Your task to perform on an android device: open app "Upside-Cash back on gas & food" (install if not already installed) and enter user name: "transatlantic@gmail.com" and password: "experiences" Image 0: 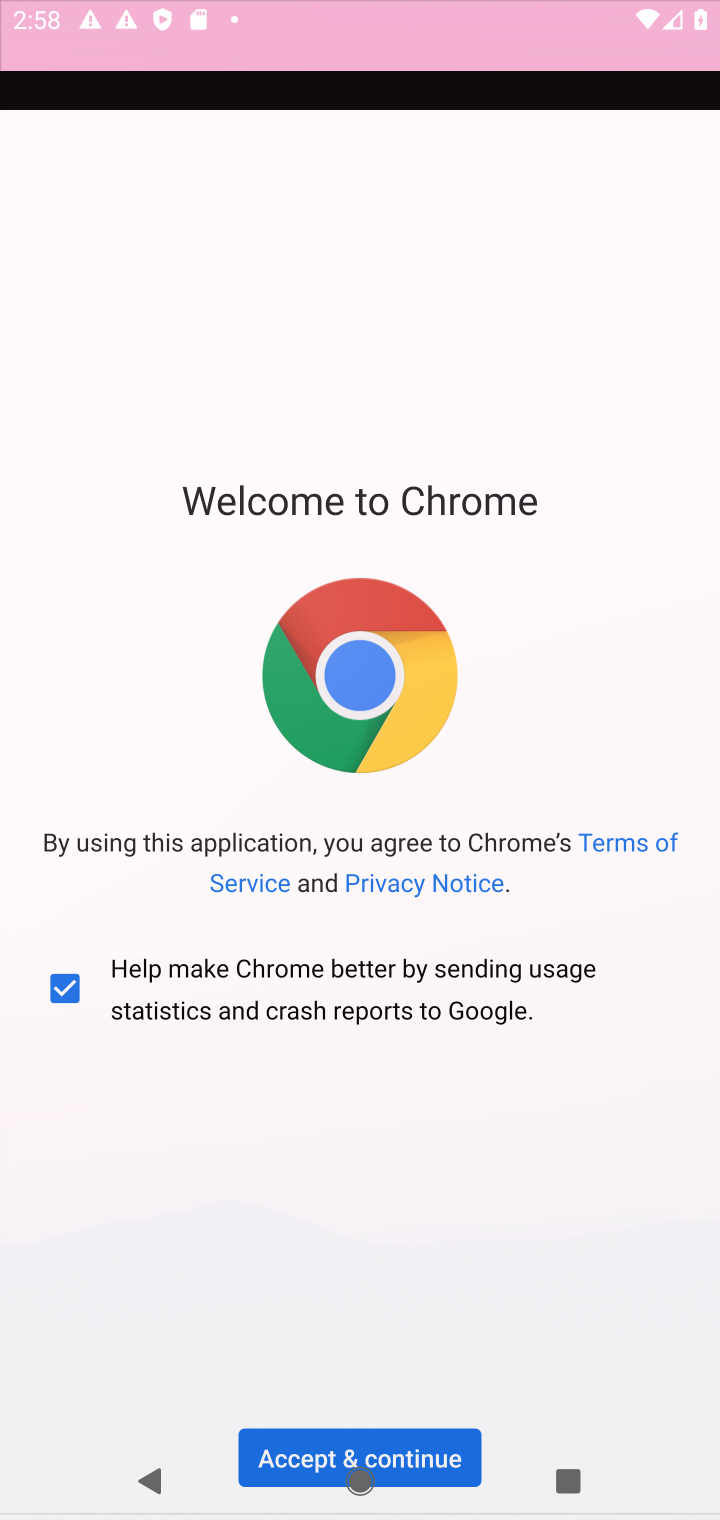
Step 0: press home button
Your task to perform on an android device: open app "Upside-Cash back on gas & food" (install if not already installed) and enter user name: "transatlantic@gmail.com" and password: "experiences" Image 1: 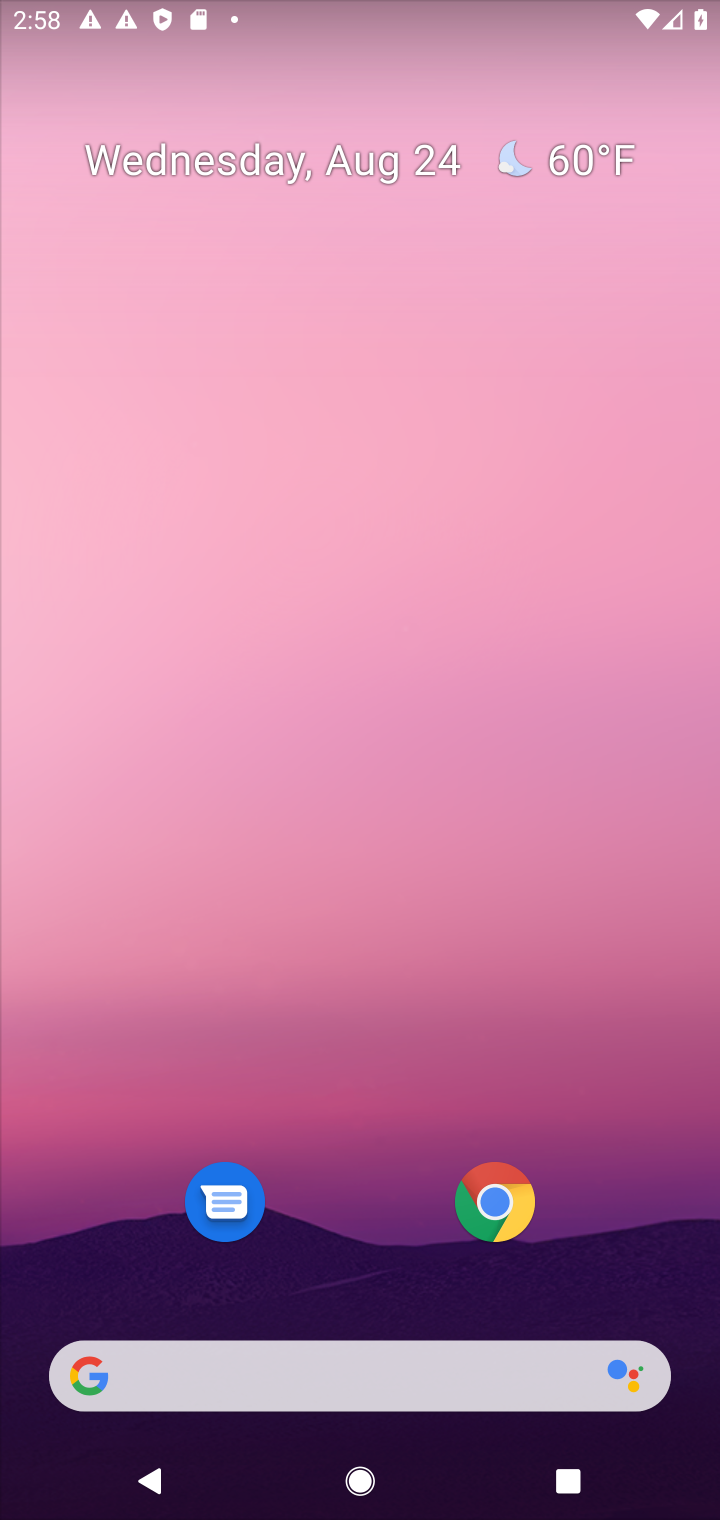
Step 1: drag from (368, 1367) to (582, 14)
Your task to perform on an android device: open app "Upside-Cash back on gas & food" (install if not already installed) and enter user name: "transatlantic@gmail.com" and password: "experiences" Image 2: 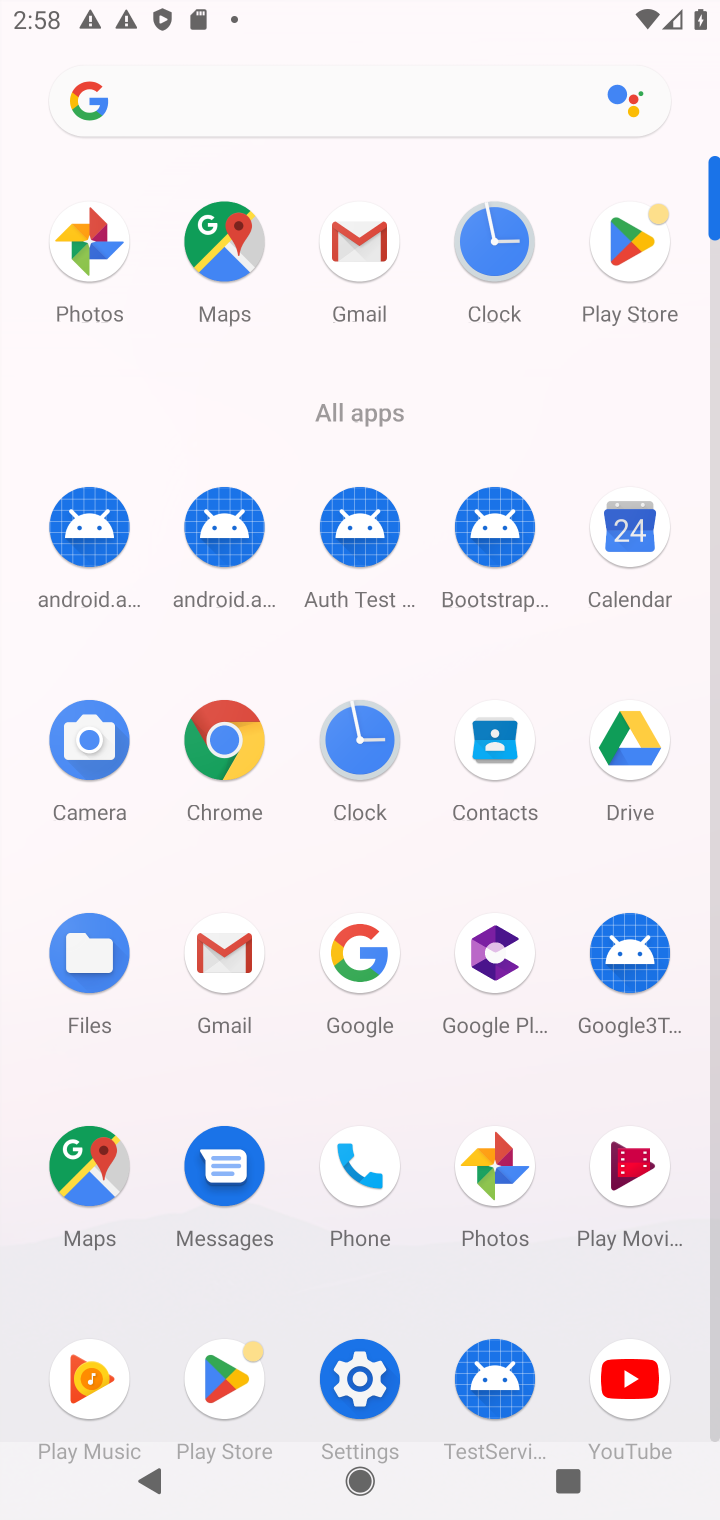
Step 2: drag from (229, 1379) to (391, 836)
Your task to perform on an android device: open app "Upside-Cash back on gas & food" (install if not already installed) and enter user name: "transatlantic@gmail.com" and password: "experiences" Image 3: 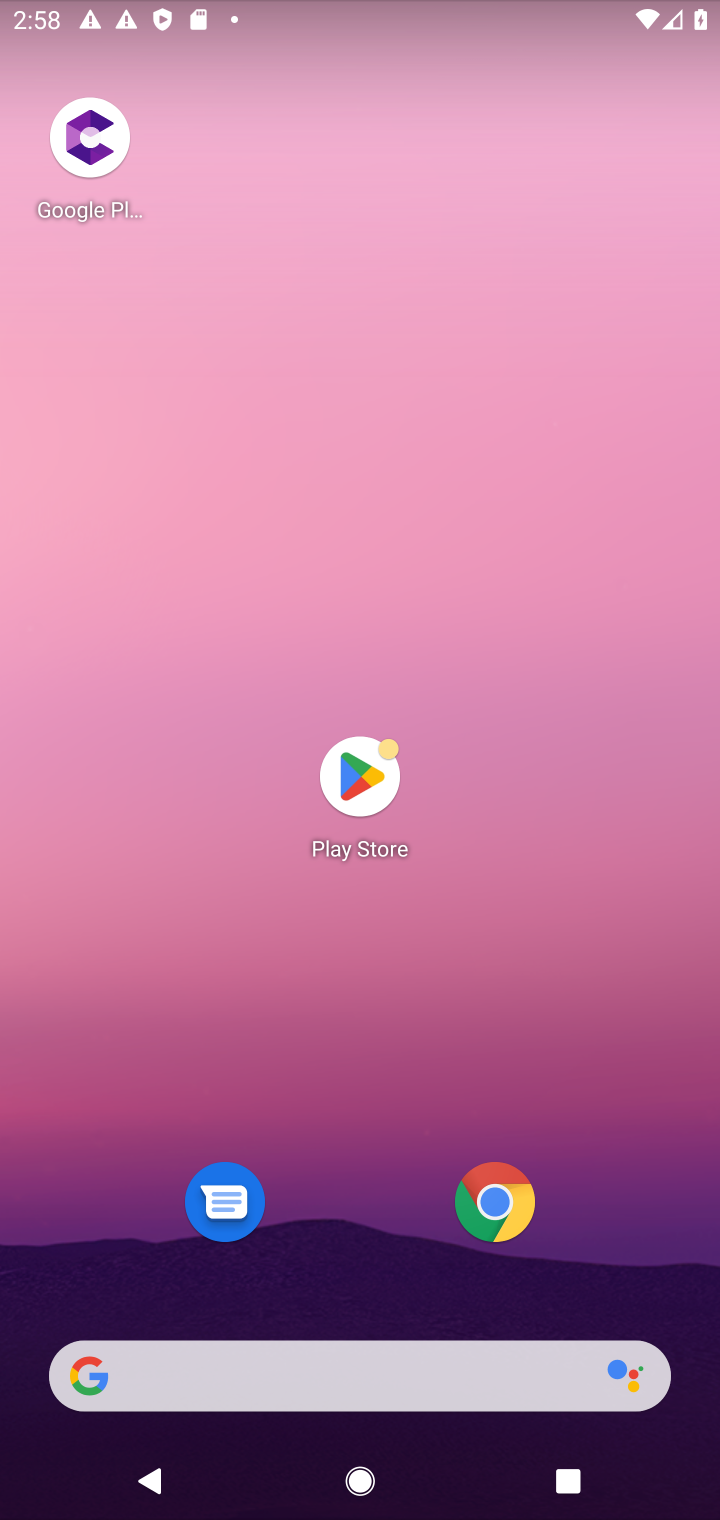
Step 3: drag from (356, 792) to (412, 847)
Your task to perform on an android device: open app "Upside-Cash back on gas & food" (install if not already installed) and enter user name: "transatlantic@gmail.com" and password: "experiences" Image 4: 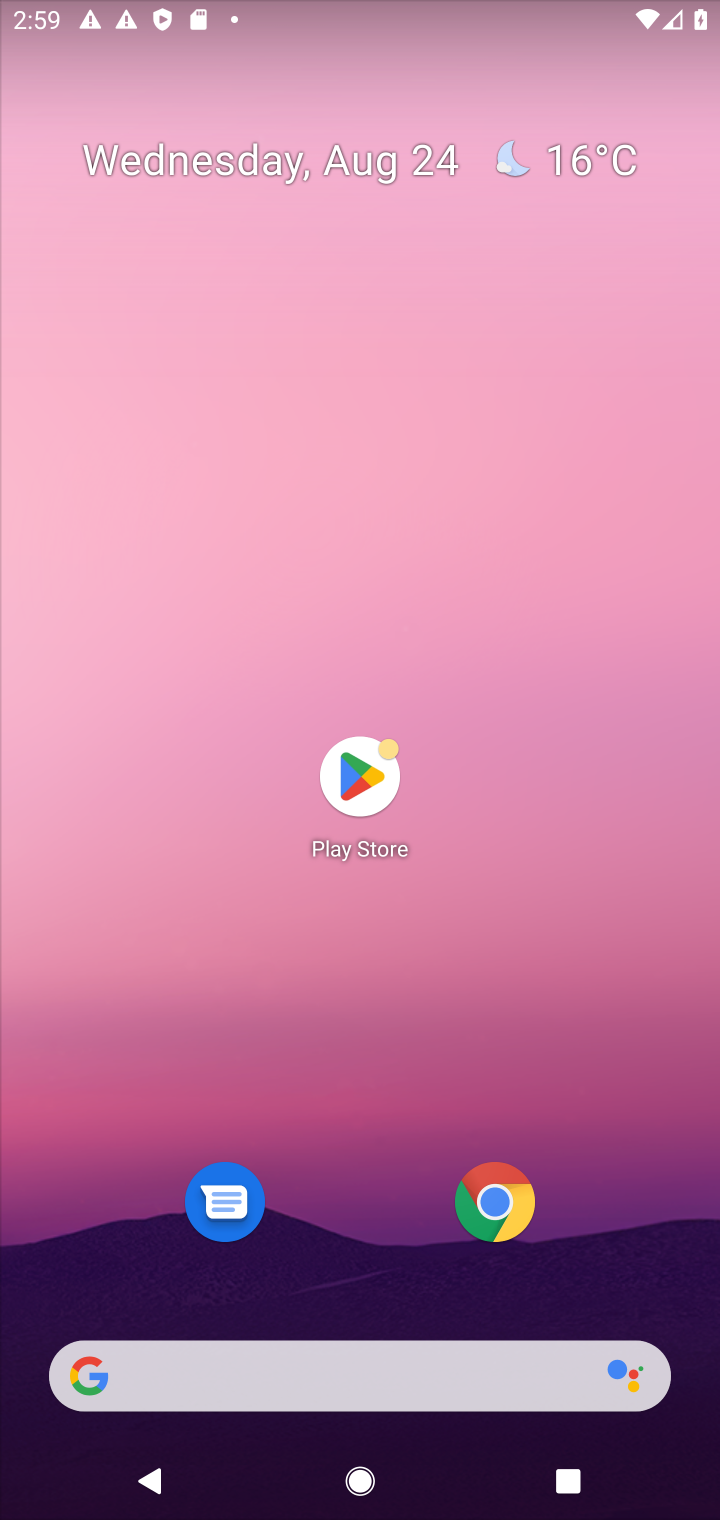
Step 4: click (346, 755)
Your task to perform on an android device: open app "Upside-Cash back on gas & food" (install if not already installed) and enter user name: "transatlantic@gmail.com" and password: "experiences" Image 5: 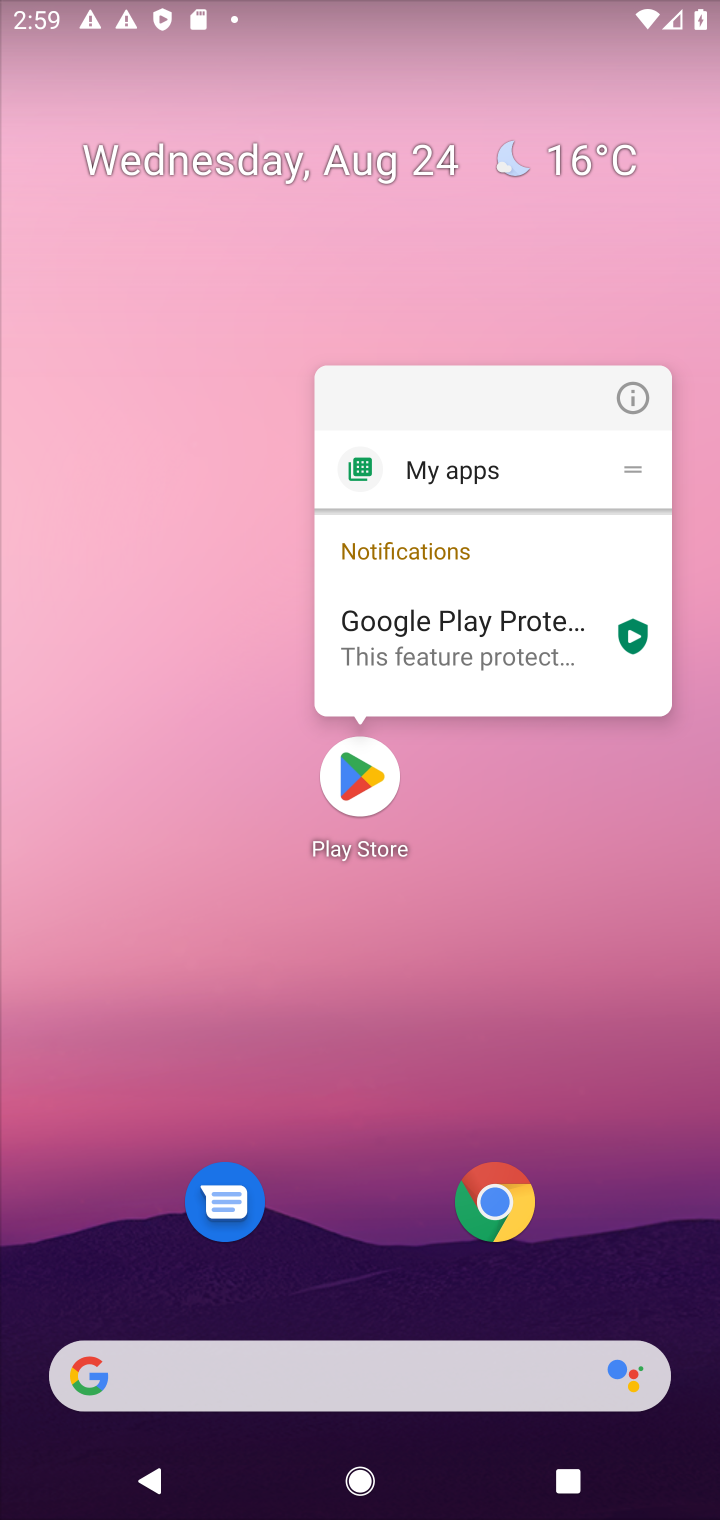
Step 5: click (346, 755)
Your task to perform on an android device: open app "Upside-Cash back on gas & food" (install if not already installed) and enter user name: "transatlantic@gmail.com" and password: "experiences" Image 6: 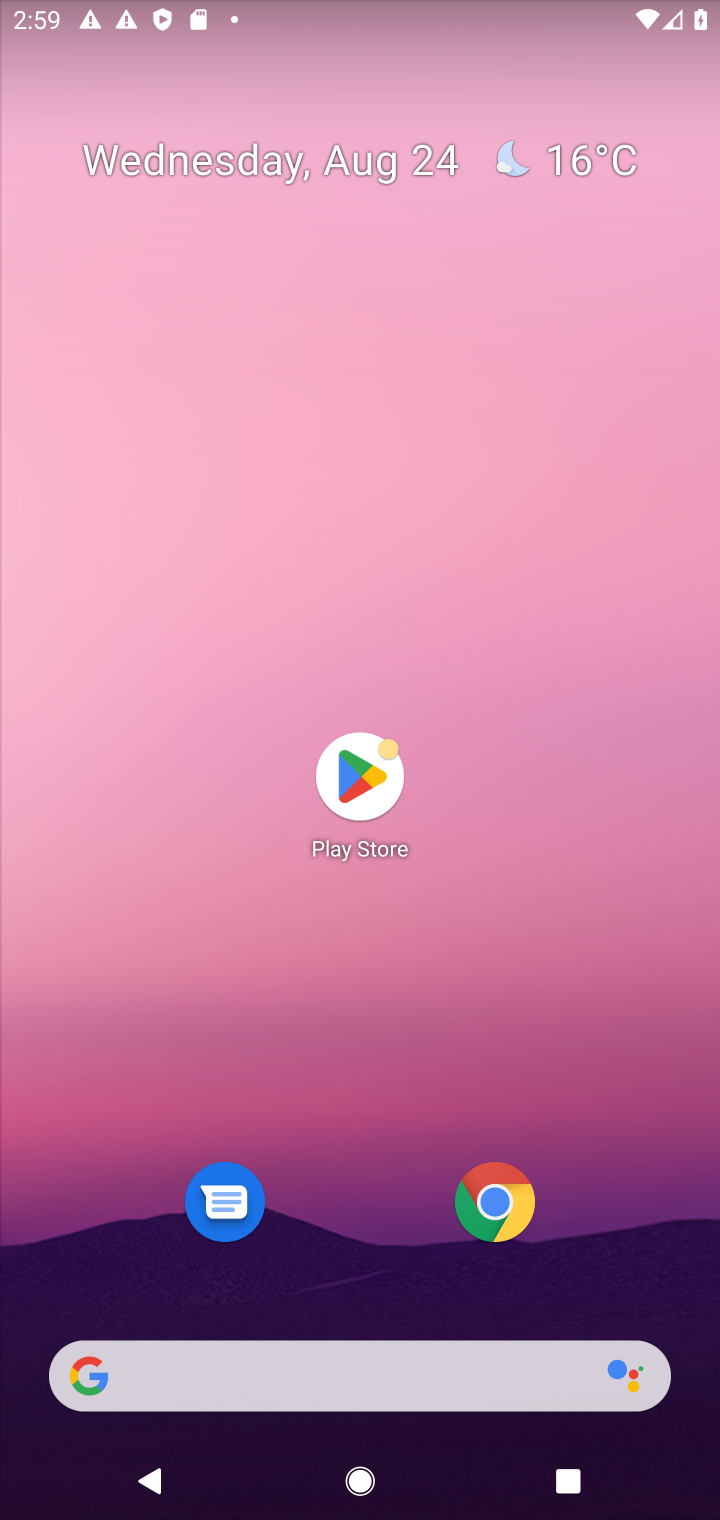
Step 6: click (362, 773)
Your task to perform on an android device: open app "Upside-Cash back on gas & food" (install if not already installed) and enter user name: "transatlantic@gmail.com" and password: "experiences" Image 7: 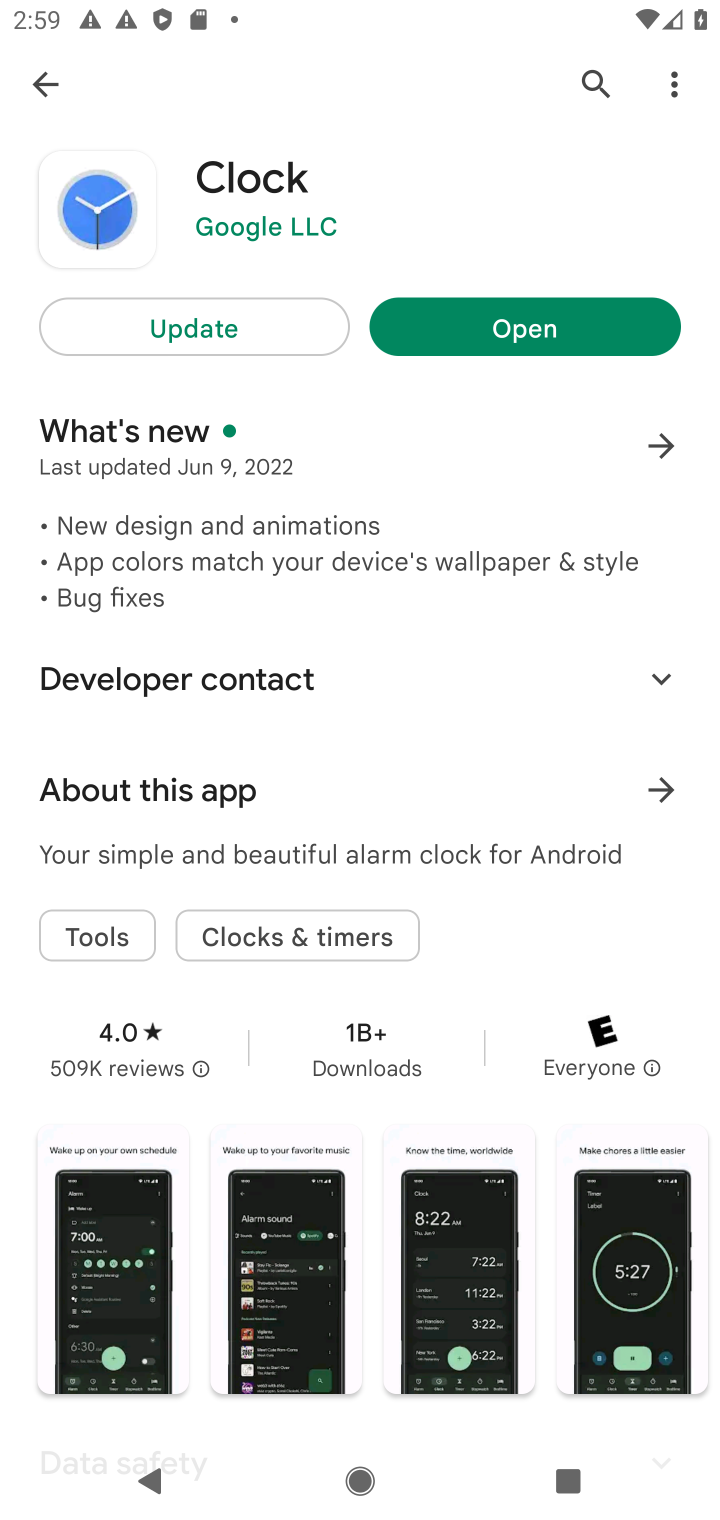
Step 7: click (585, 75)
Your task to perform on an android device: open app "Upside-Cash back on gas & food" (install if not already installed) and enter user name: "transatlantic@gmail.com" and password: "experiences" Image 8: 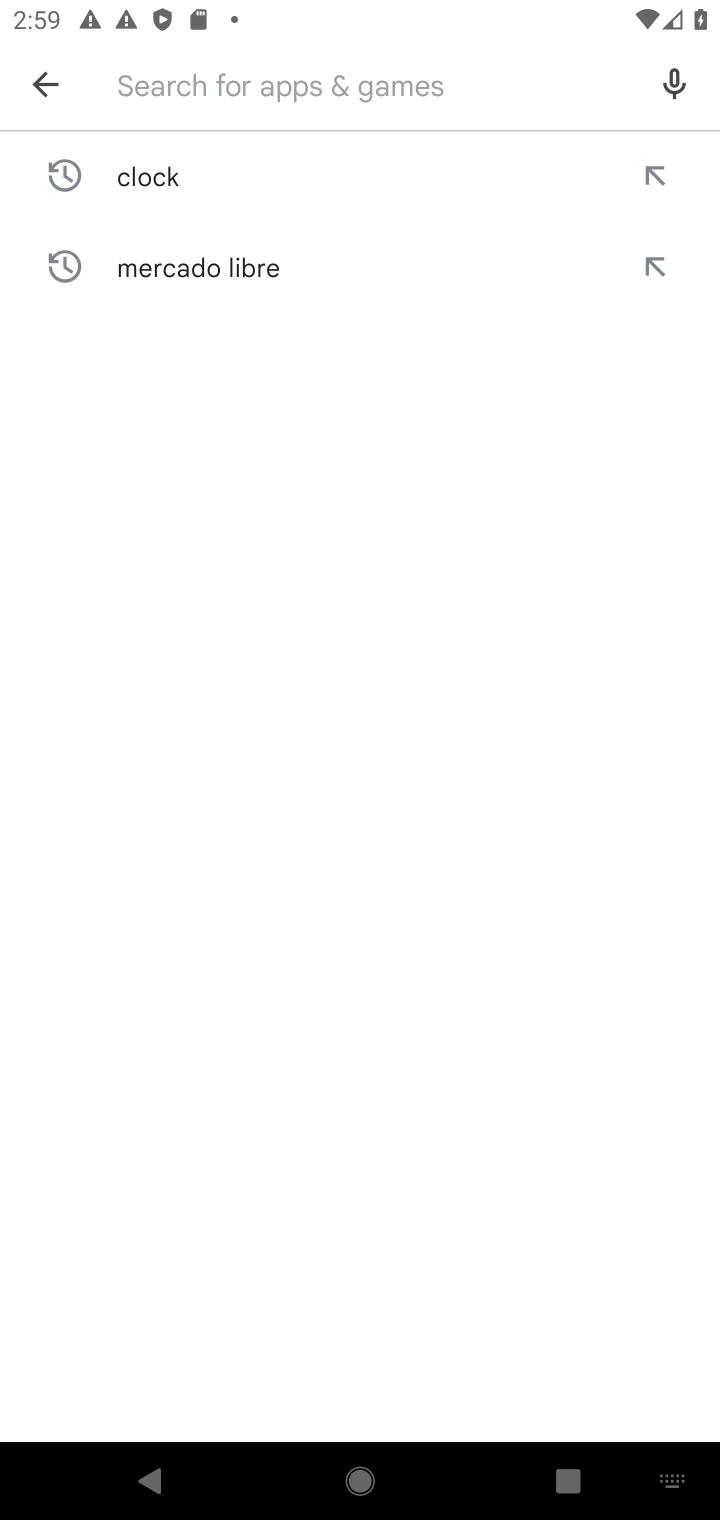
Step 8: type "Upside-Cash back on gas & food"
Your task to perform on an android device: open app "Upside-Cash back on gas & food" (install if not already installed) and enter user name: "transatlantic@gmail.com" and password: "experiences" Image 9: 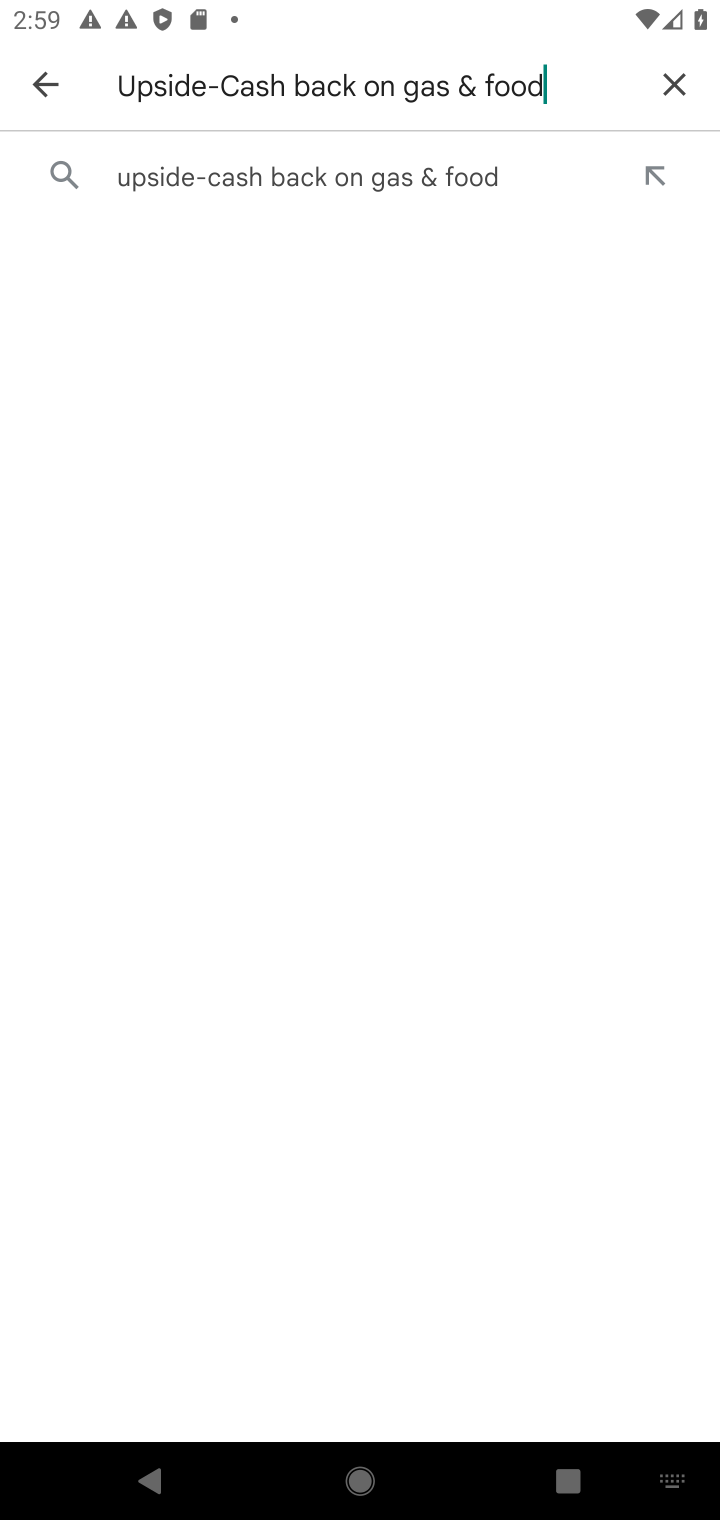
Step 9: click (218, 184)
Your task to perform on an android device: open app "Upside-Cash back on gas & food" (install if not already installed) and enter user name: "transatlantic@gmail.com" and password: "experiences" Image 10: 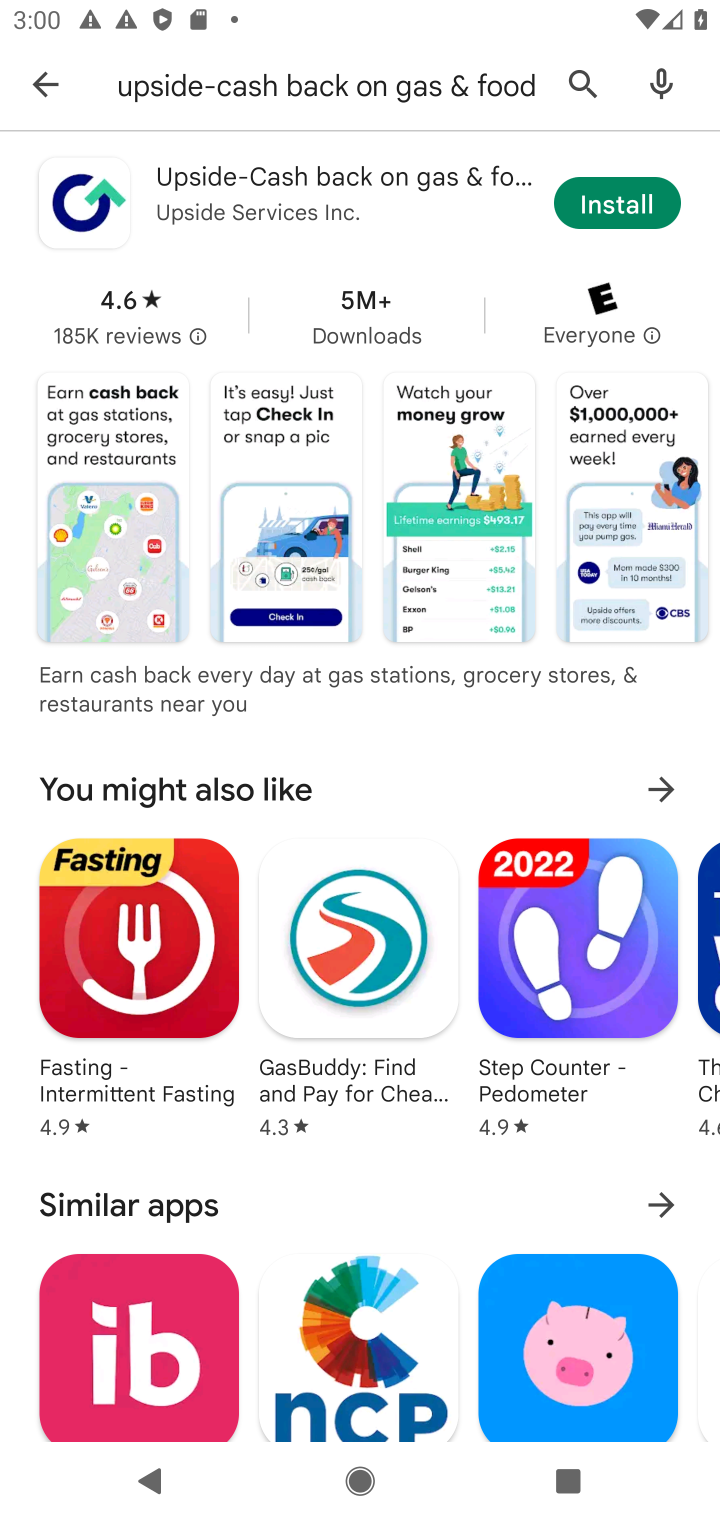
Step 10: click (626, 210)
Your task to perform on an android device: open app "Upside-Cash back on gas & food" (install if not already installed) and enter user name: "transatlantic@gmail.com" and password: "experiences" Image 11: 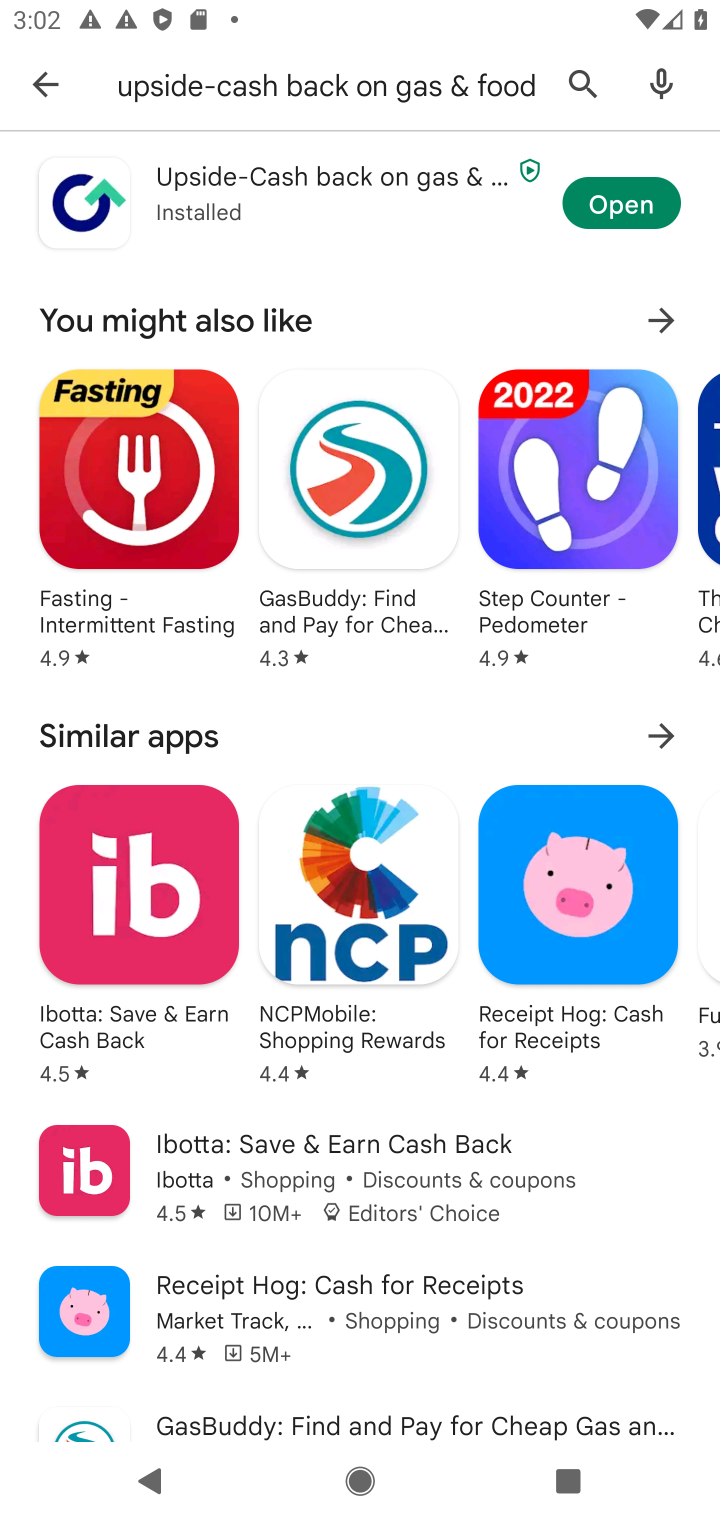
Step 11: click (635, 201)
Your task to perform on an android device: open app "Upside-Cash back on gas & food" (install if not already installed) and enter user name: "transatlantic@gmail.com" and password: "experiences" Image 12: 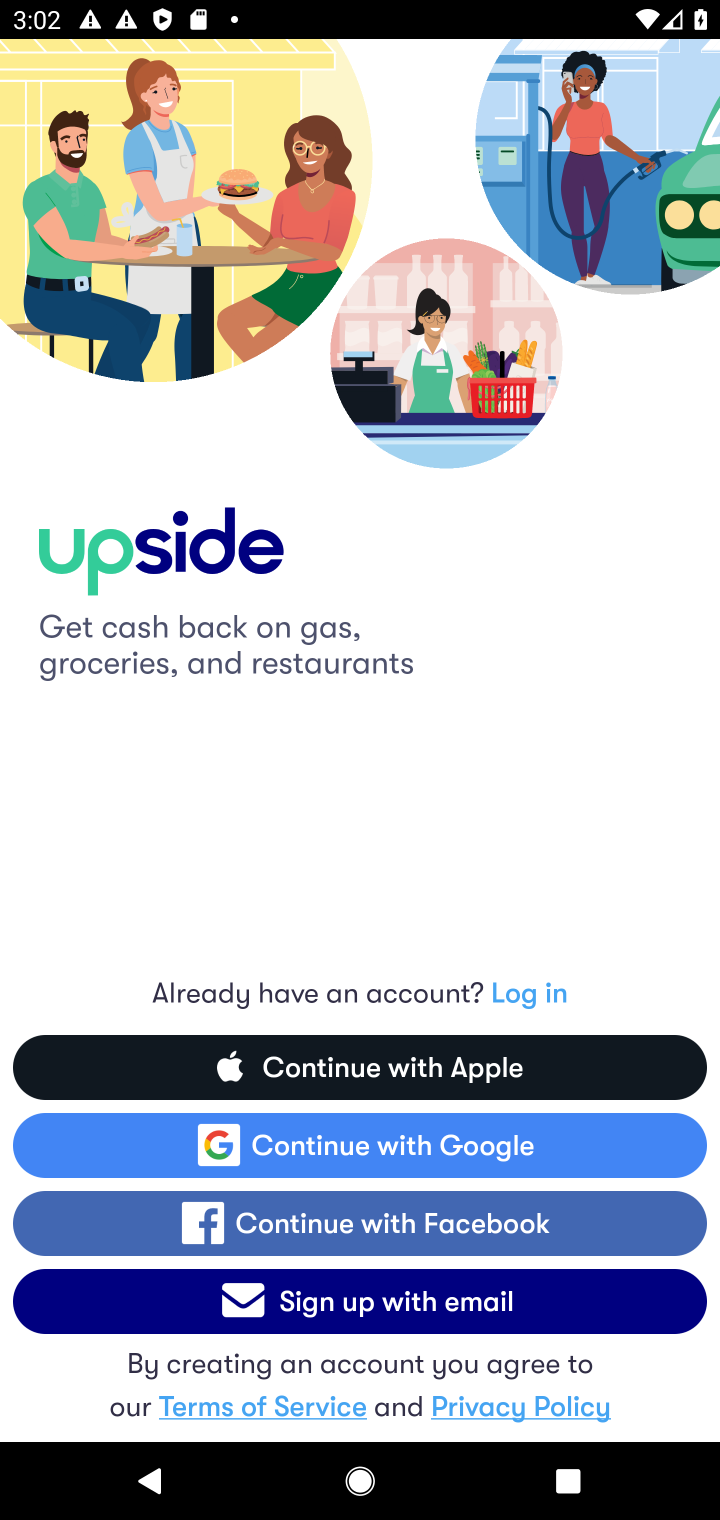
Step 12: click (473, 1309)
Your task to perform on an android device: open app "Upside-Cash back on gas & food" (install if not already installed) and enter user name: "transatlantic@gmail.com" and password: "experiences" Image 13: 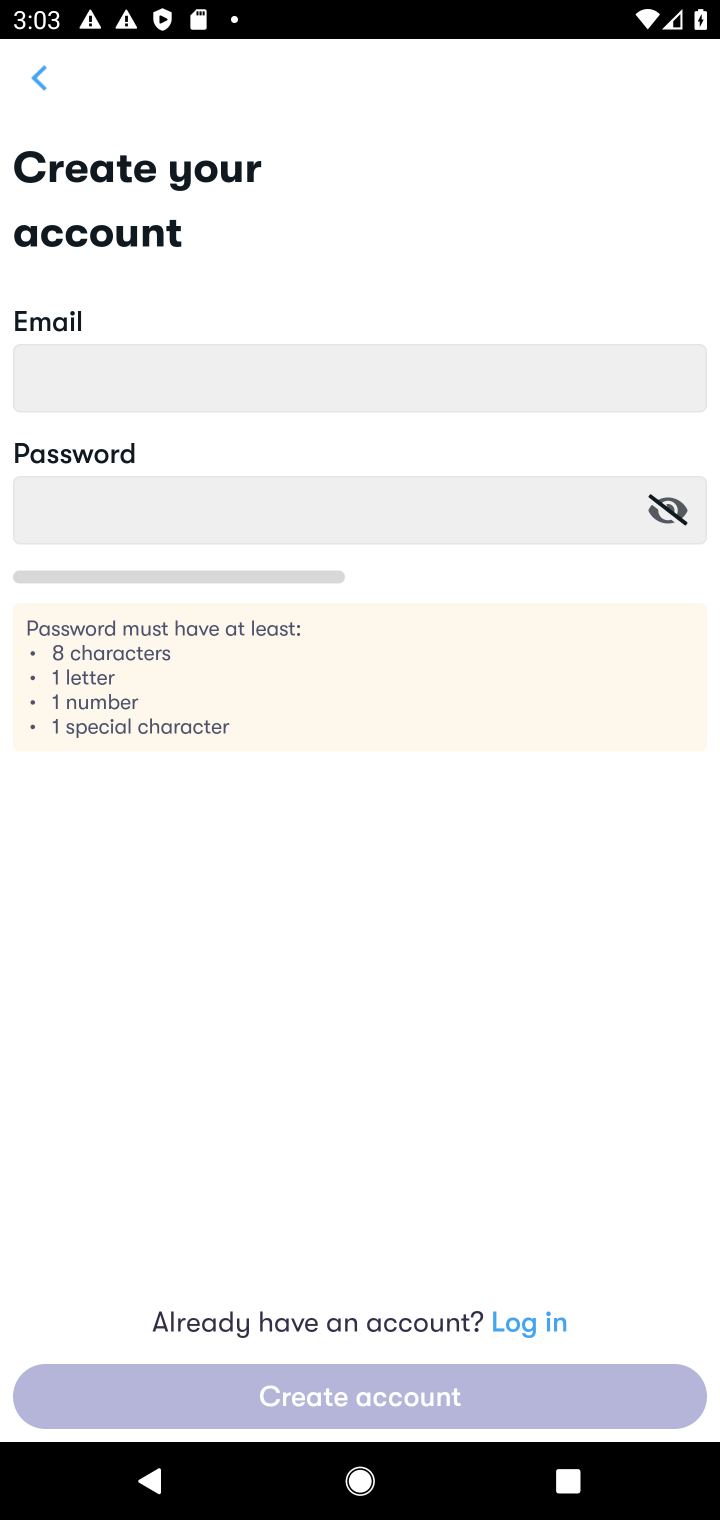
Step 13: click (227, 377)
Your task to perform on an android device: open app "Upside-Cash back on gas & food" (install if not already installed) and enter user name: "transatlantic@gmail.com" and password: "experiences" Image 14: 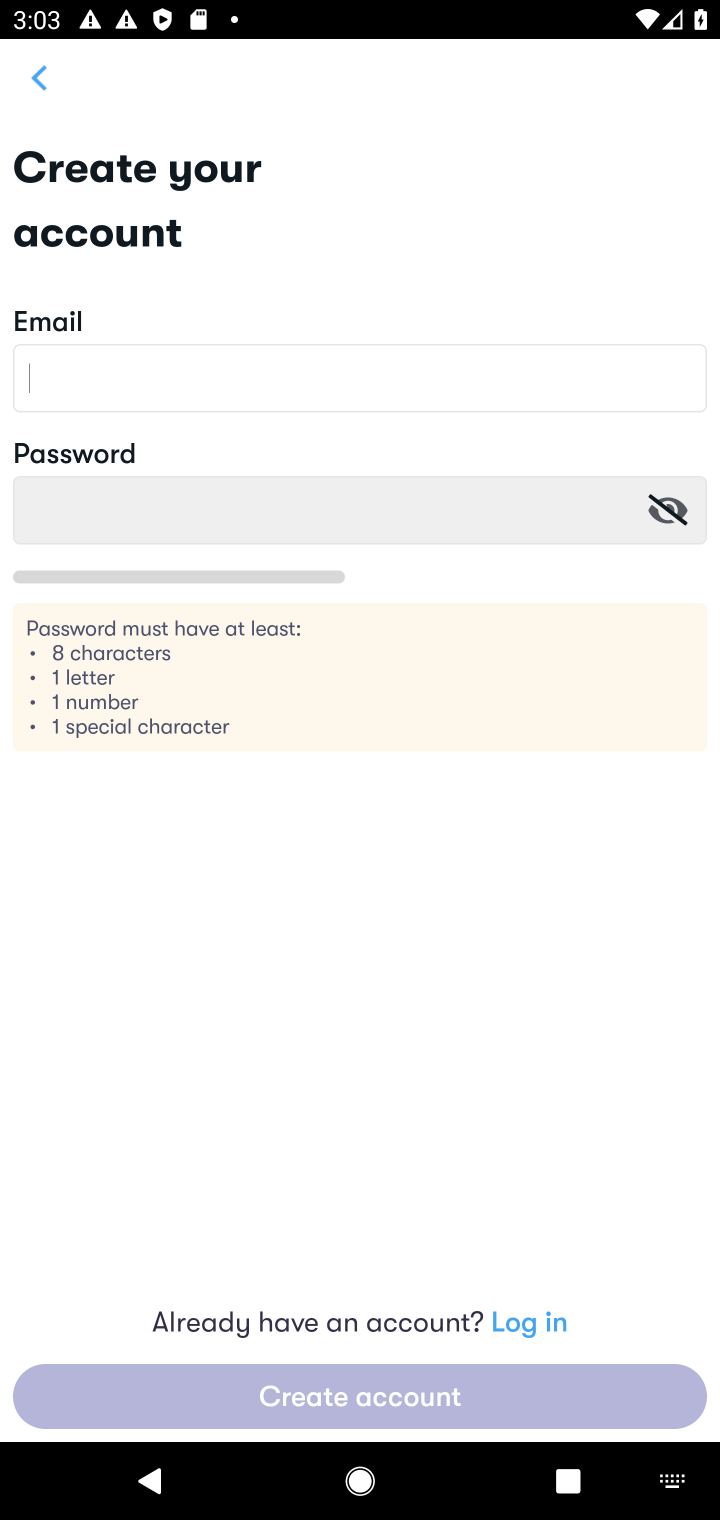
Step 14: click (56, 373)
Your task to perform on an android device: open app "Upside-Cash back on gas & food" (install if not already installed) and enter user name: "transatlantic@gmail.com" and password: "experiences" Image 15: 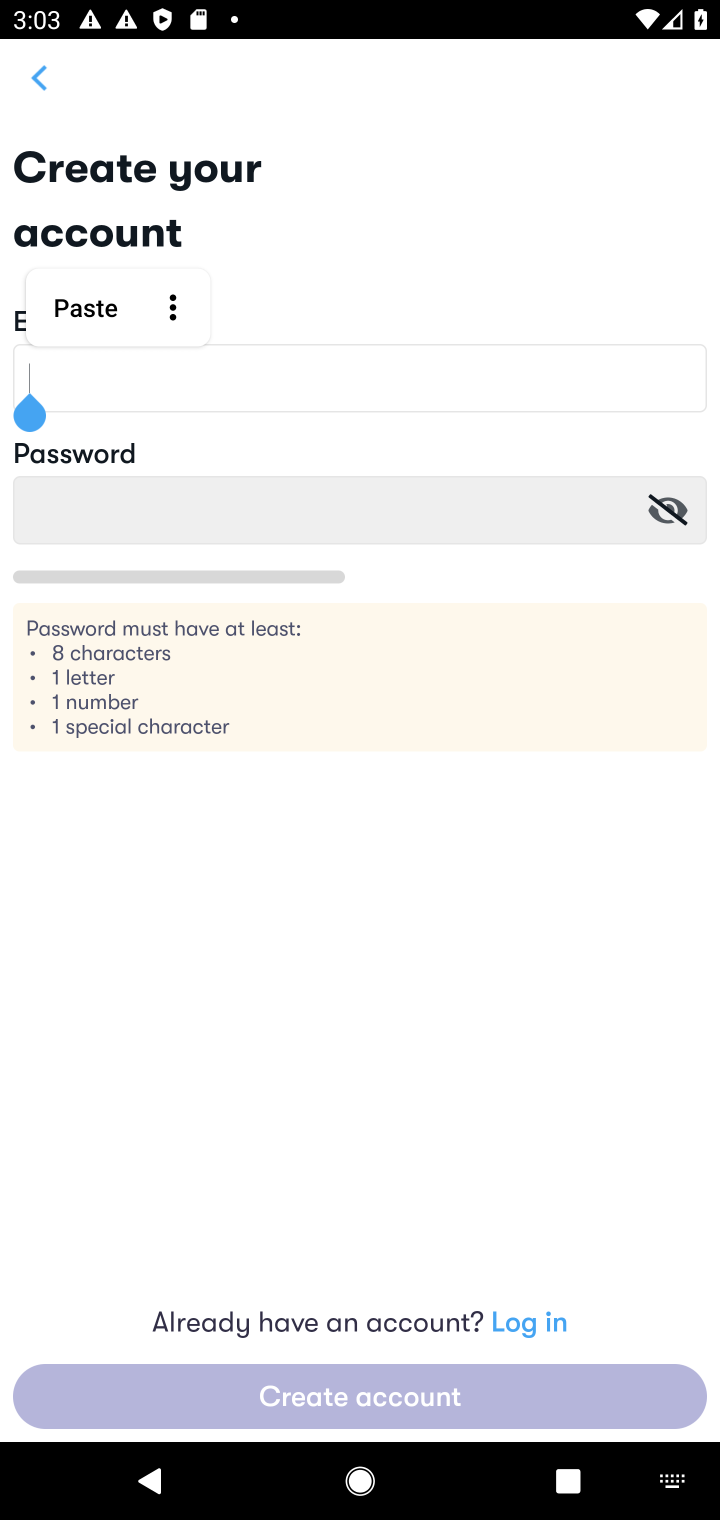
Step 15: click (91, 363)
Your task to perform on an android device: open app "Upside-Cash back on gas & food" (install if not already installed) and enter user name: "transatlantic@gmail.com" and password: "experiences" Image 16: 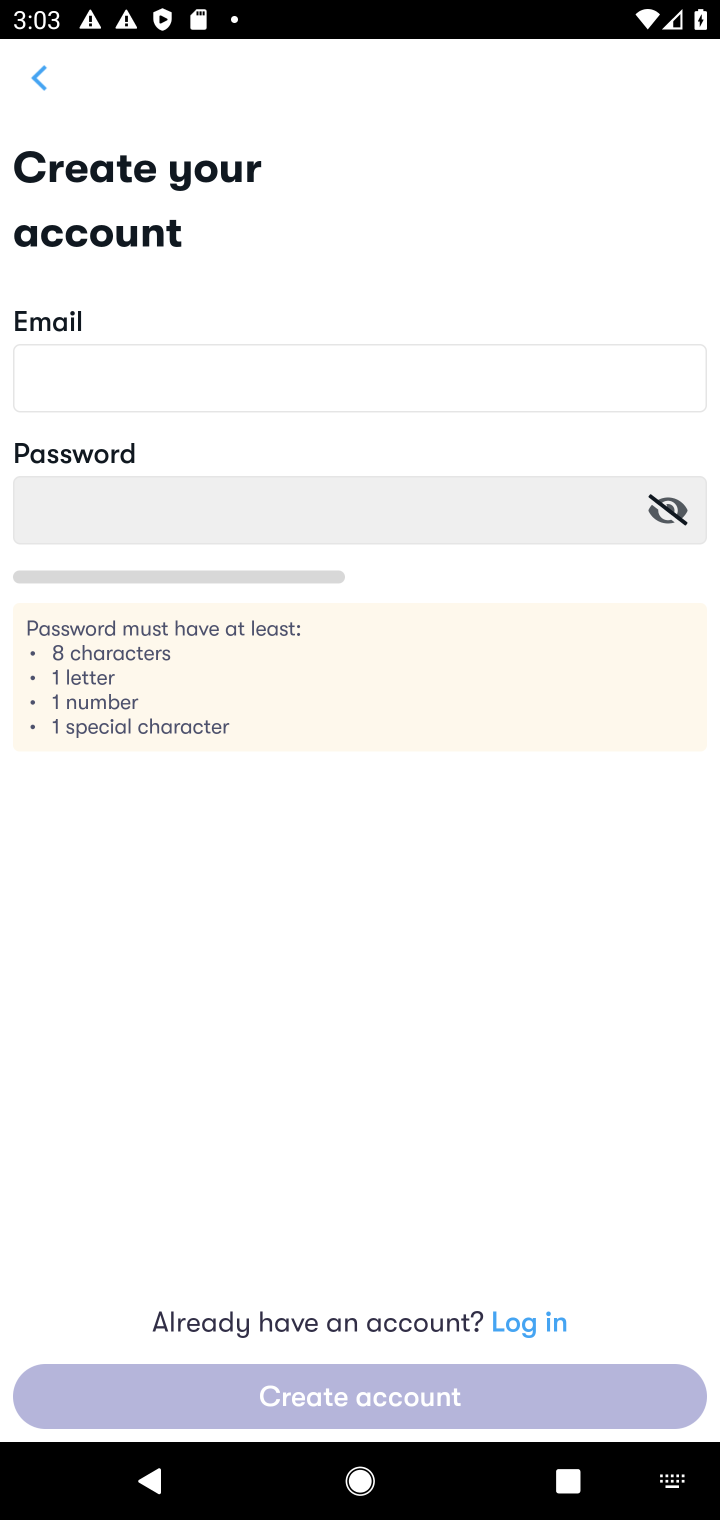
Step 16: click (62, 357)
Your task to perform on an android device: open app "Upside-Cash back on gas & food" (install if not already installed) and enter user name: "transatlantic@gmail.com" and password: "experiences" Image 17: 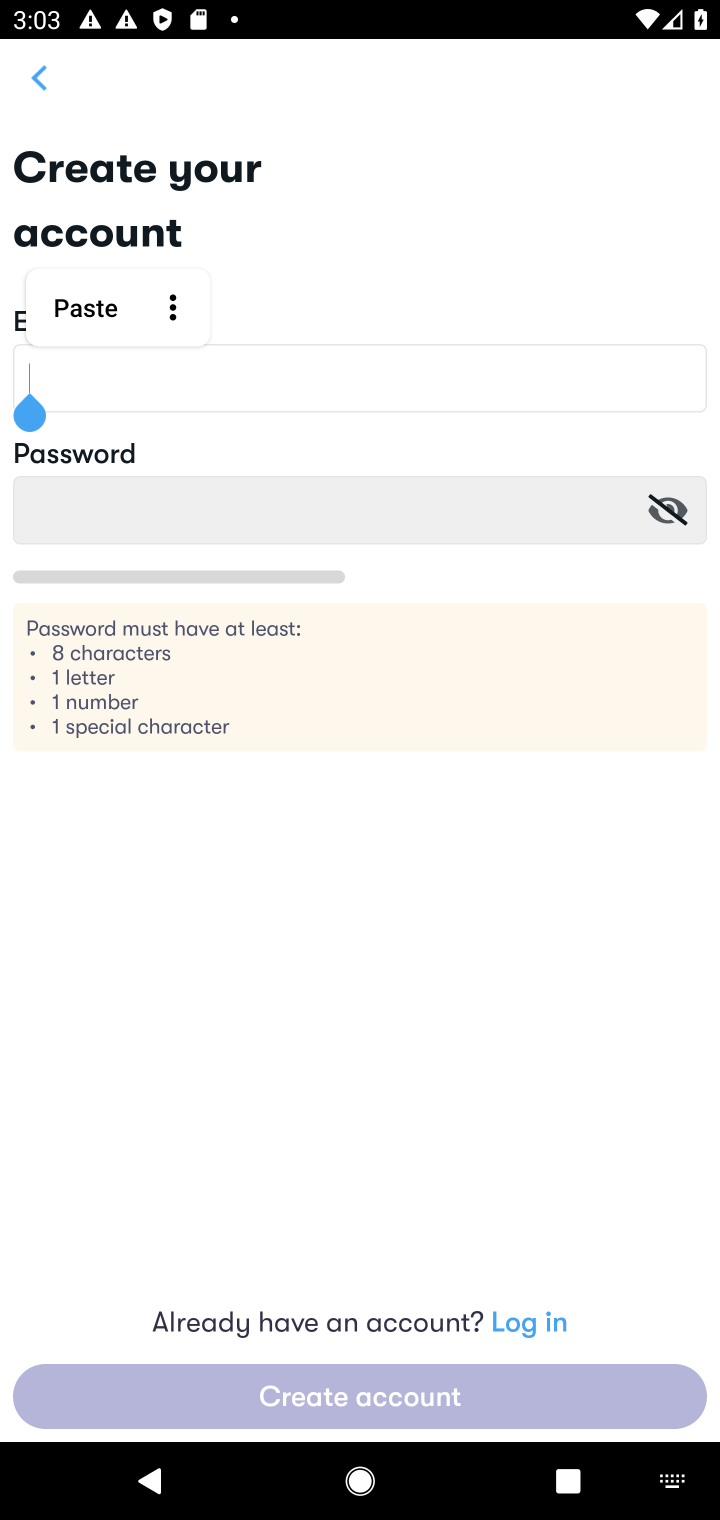
Step 17: click (179, 363)
Your task to perform on an android device: open app "Upside-Cash back on gas & food" (install if not already installed) and enter user name: "transatlantic@gmail.com" and password: "experiences" Image 18: 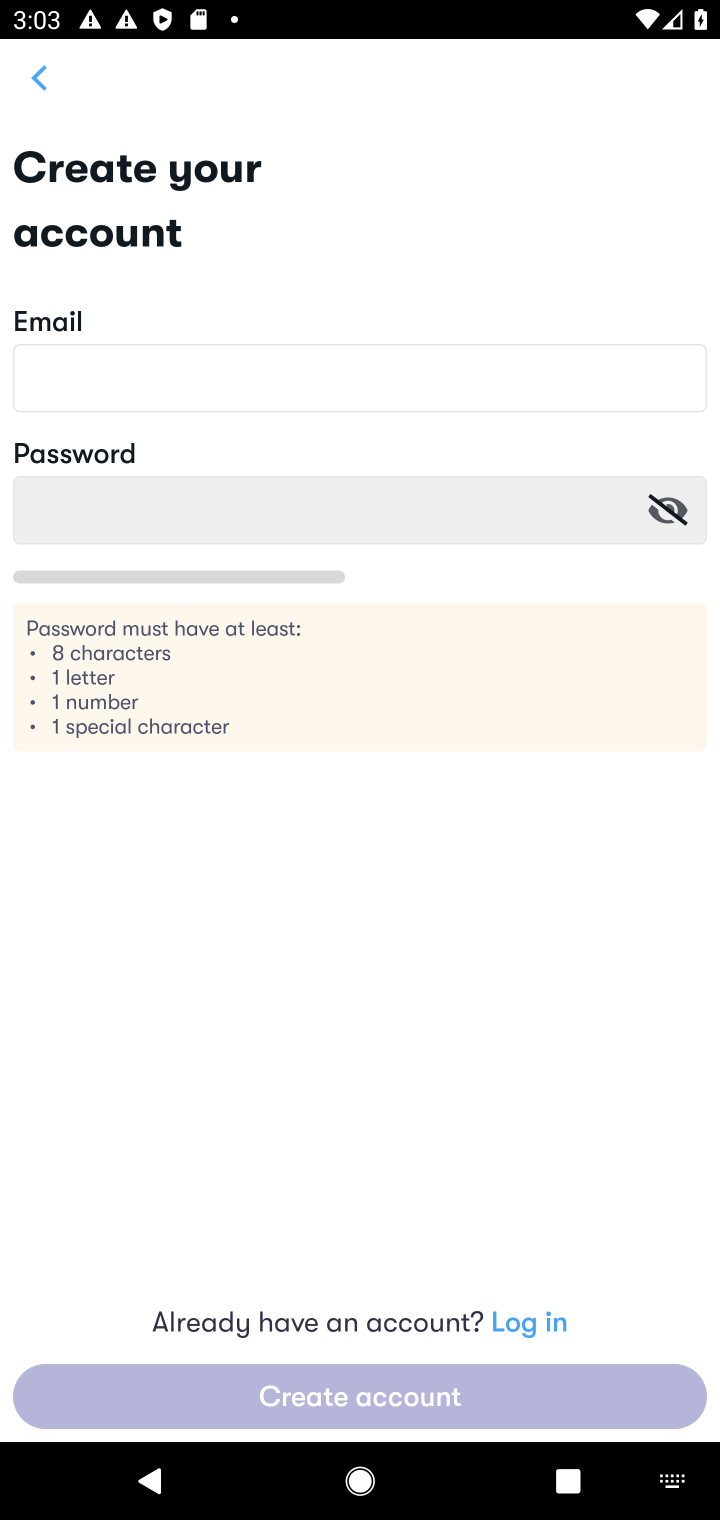
Step 18: type "transatlantic@gmail.com"
Your task to perform on an android device: open app "Upside-Cash back on gas & food" (install if not already installed) and enter user name: "transatlantic@gmail.com" and password: "experiences" Image 19: 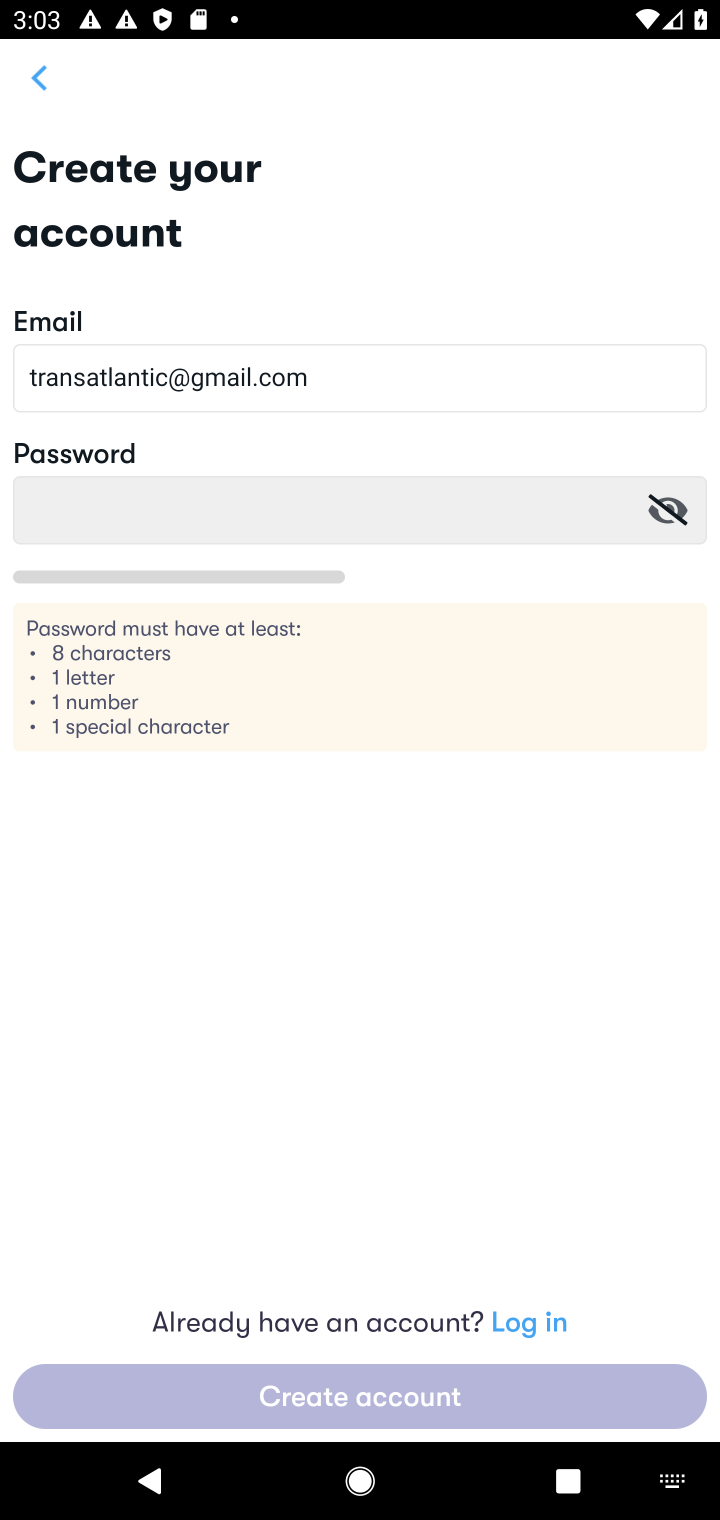
Step 19: click (159, 505)
Your task to perform on an android device: open app "Upside-Cash back on gas & food" (install if not already installed) and enter user name: "transatlantic@gmail.com" and password: "experiences" Image 20: 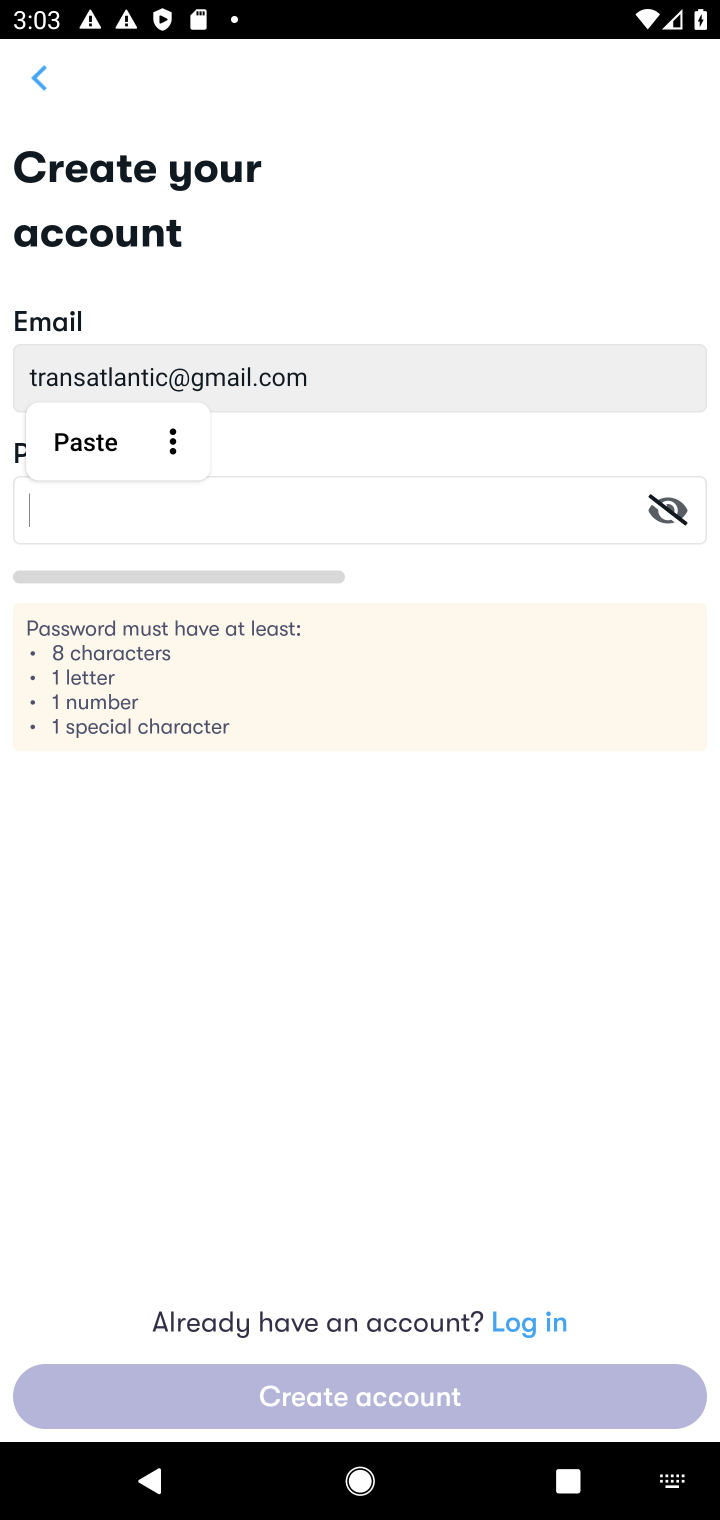
Step 20: type "experiences"
Your task to perform on an android device: open app "Upside-Cash back on gas & food" (install if not already installed) and enter user name: "transatlantic@gmail.com" and password: "experiences" Image 21: 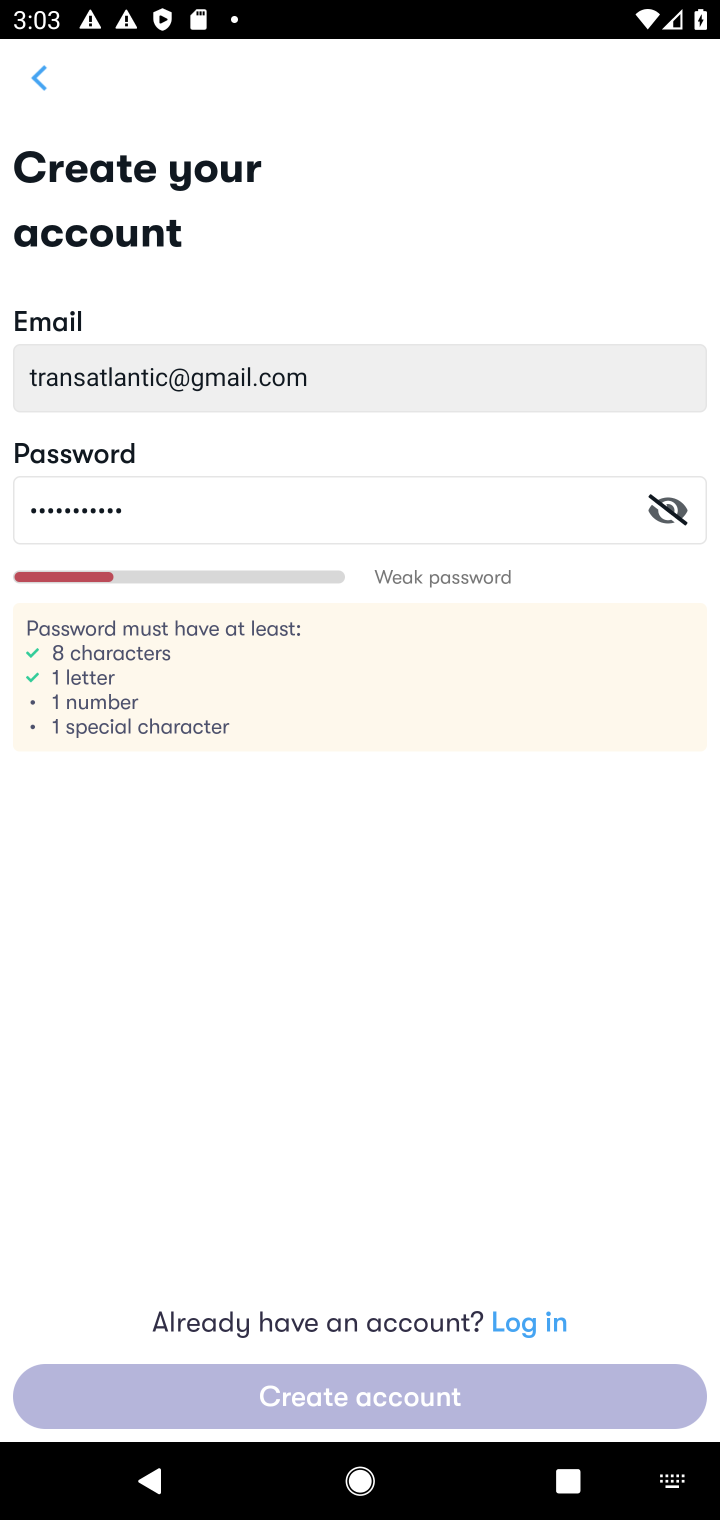
Step 21: task complete